Your task to perform on an android device: stop showing notifications on the lock screen Image 0: 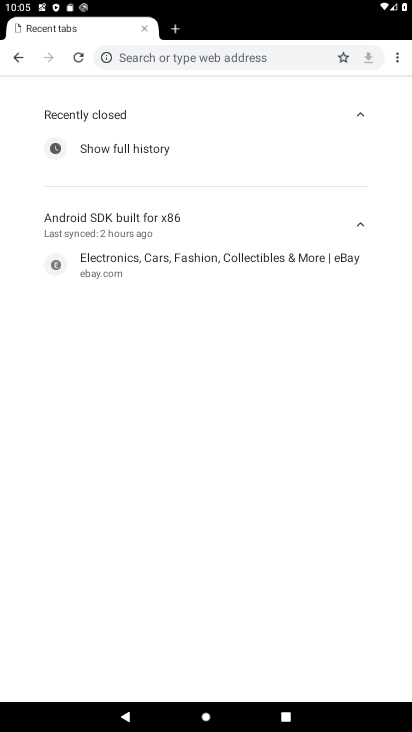
Step 0: press home button
Your task to perform on an android device: stop showing notifications on the lock screen Image 1: 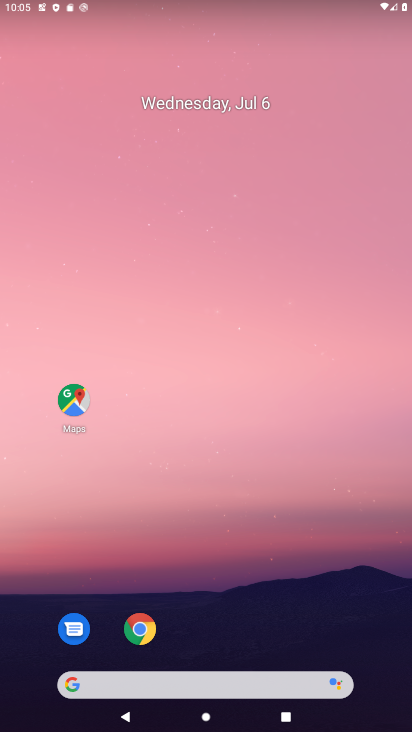
Step 1: drag from (213, 653) to (208, 131)
Your task to perform on an android device: stop showing notifications on the lock screen Image 2: 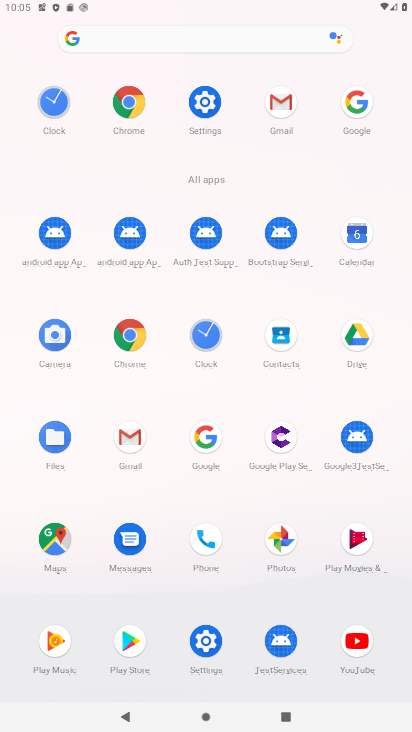
Step 2: click (200, 94)
Your task to perform on an android device: stop showing notifications on the lock screen Image 3: 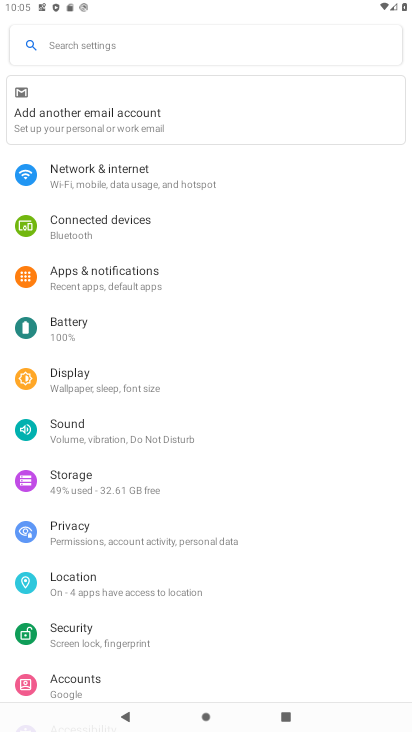
Step 3: click (104, 287)
Your task to perform on an android device: stop showing notifications on the lock screen Image 4: 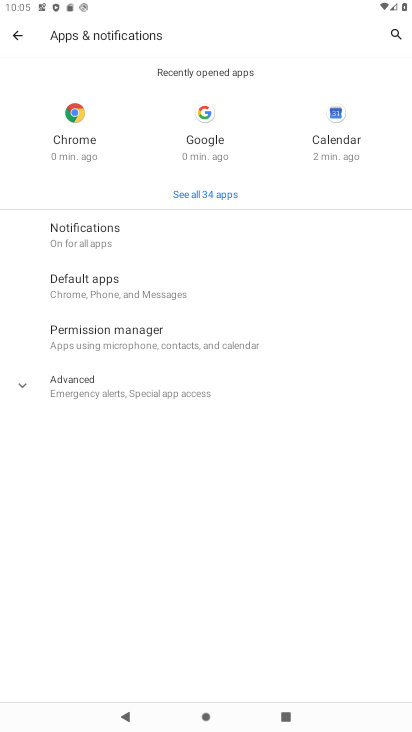
Step 4: click (99, 237)
Your task to perform on an android device: stop showing notifications on the lock screen Image 5: 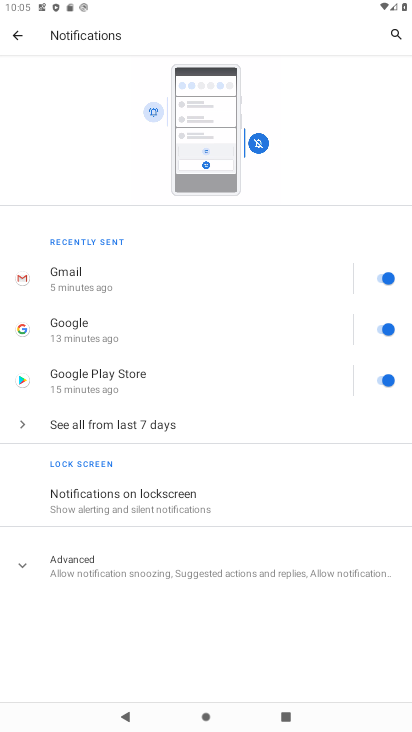
Step 5: click (104, 552)
Your task to perform on an android device: stop showing notifications on the lock screen Image 6: 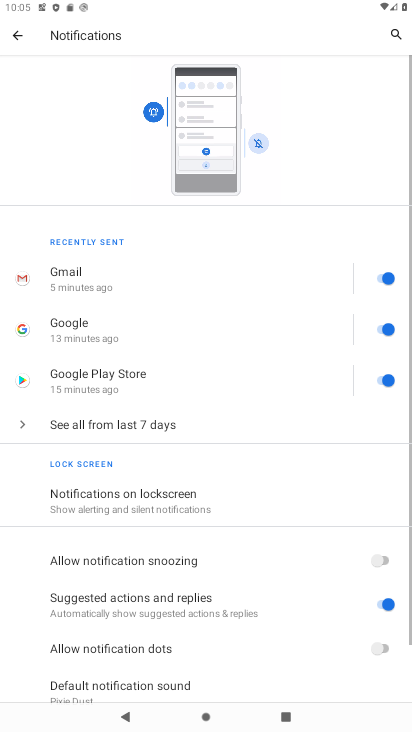
Step 6: click (98, 499)
Your task to perform on an android device: stop showing notifications on the lock screen Image 7: 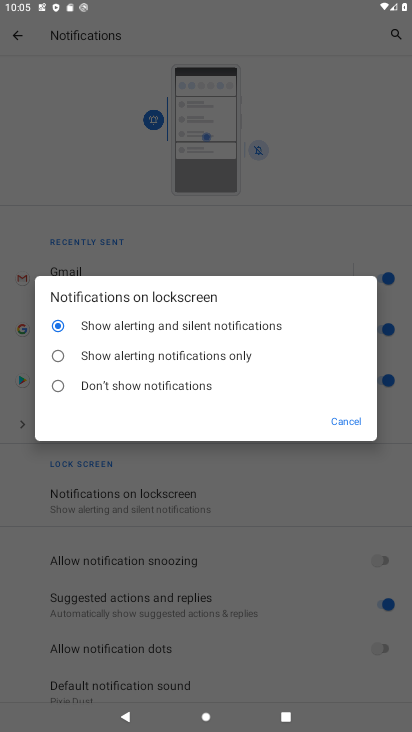
Step 7: click (55, 384)
Your task to perform on an android device: stop showing notifications on the lock screen Image 8: 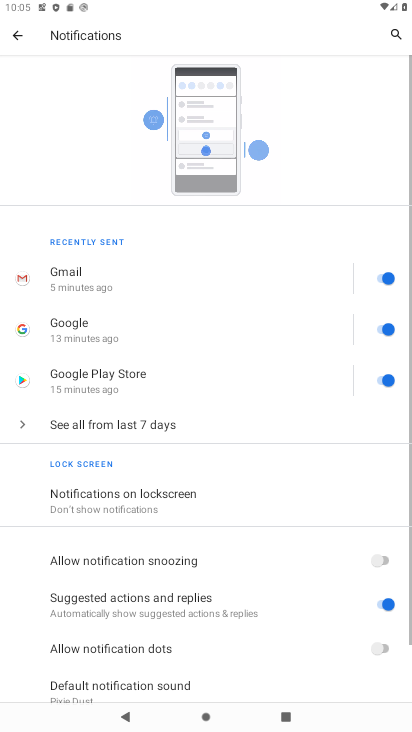
Step 8: task complete